Your task to perform on an android device: What's the weather today? Image 0: 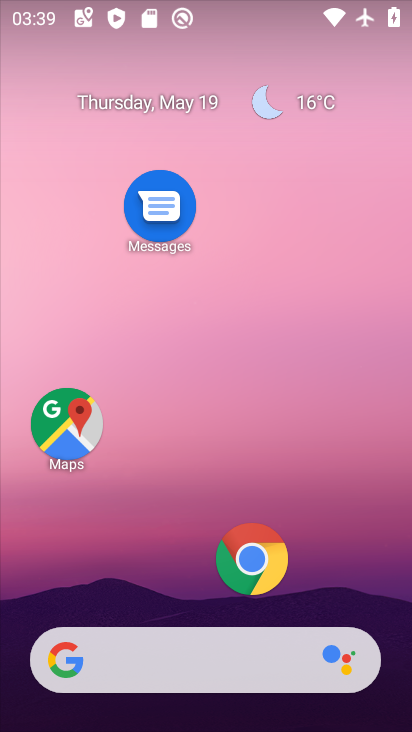
Step 0: click (173, 250)
Your task to perform on an android device: What's the weather today? Image 1: 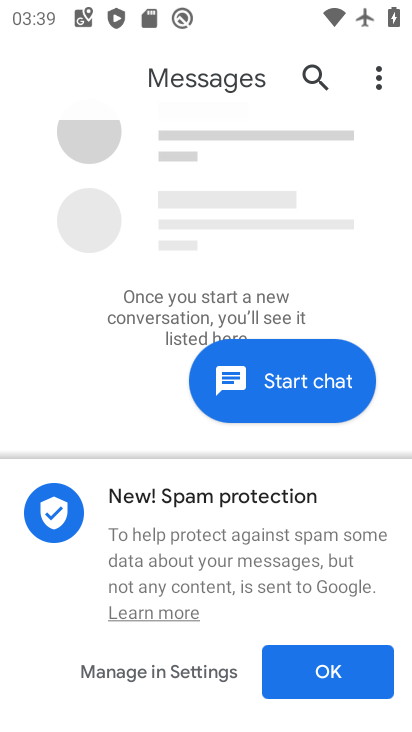
Step 1: press home button
Your task to perform on an android device: What's the weather today? Image 2: 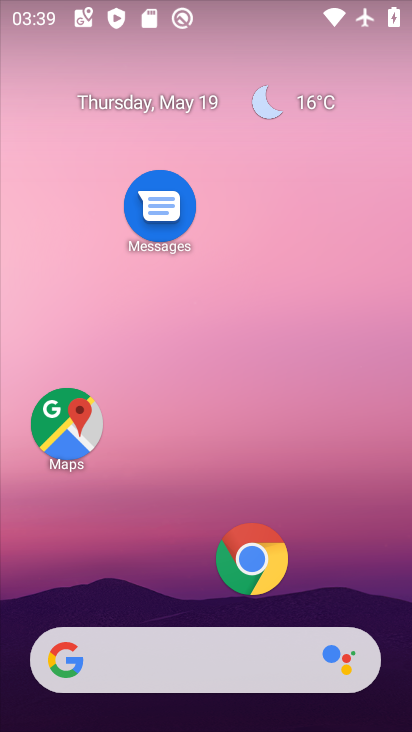
Step 2: drag from (160, 588) to (203, 189)
Your task to perform on an android device: What's the weather today? Image 3: 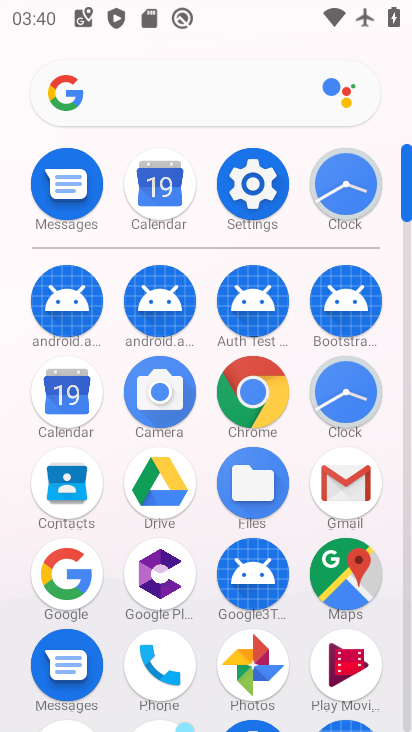
Step 3: click (77, 568)
Your task to perform on an android device: What's the weather today? Image 4: 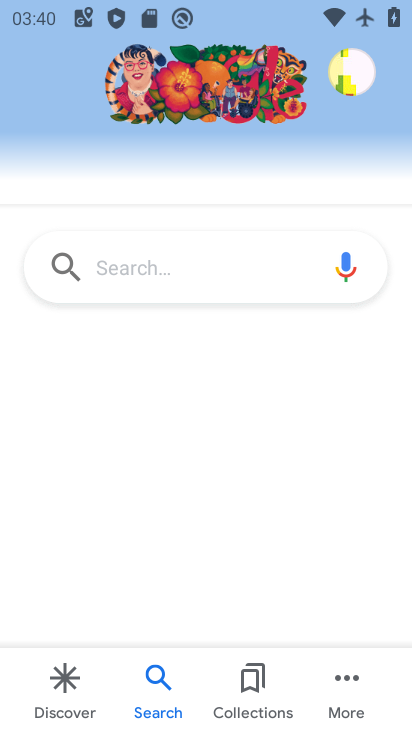
Step 4: click (182, 284)
Your task to perform on an android device: What's the weather today? Image 5: 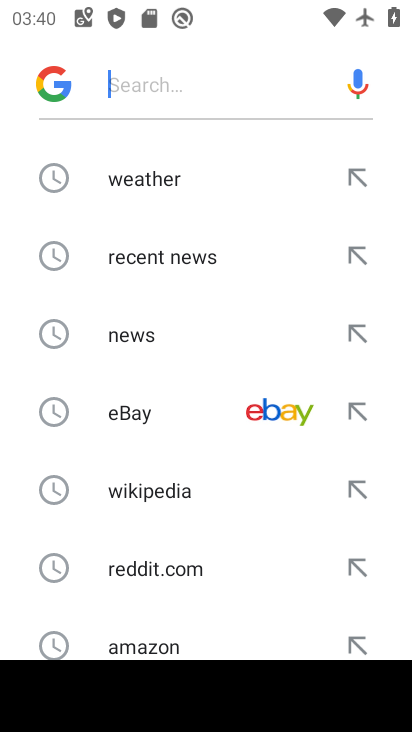
Step 5: click (140, 182)
Your task to perform on an android device: What's the weather today? Image 6: 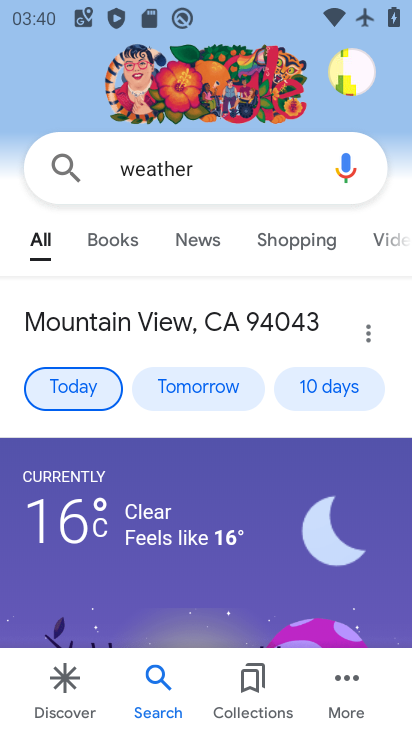
Step 6: task complete